Your task to perform on an android device: empty trash in google photos Image 0: 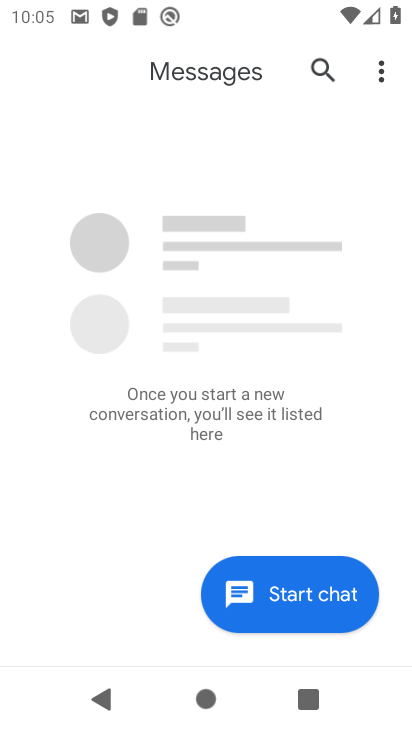
Step 0: press home button
Your task to perform on an android device: empty trash in google photos Image 1: 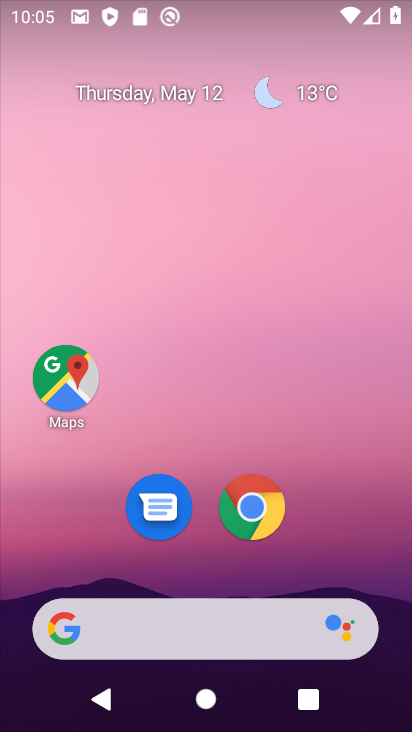
Step 1: drag from (316, 536) to (311, 128)
Your task to perform on an android device: empty trash in google photos Image 2: 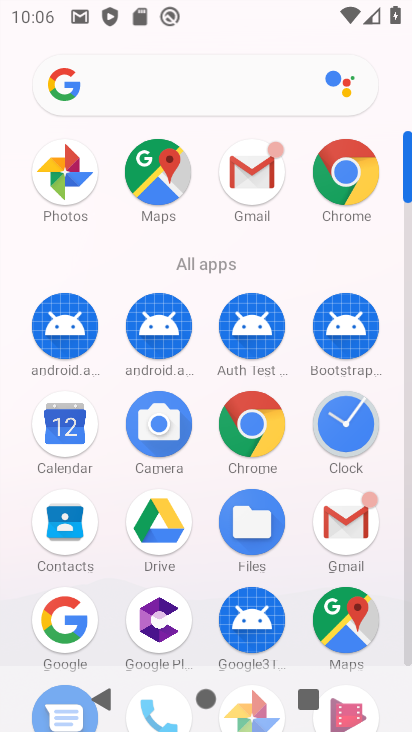
Step 2: drag from (281, 215) to (289, 2)
Your task to perform on an android device: empty trash in google photos Image 3: 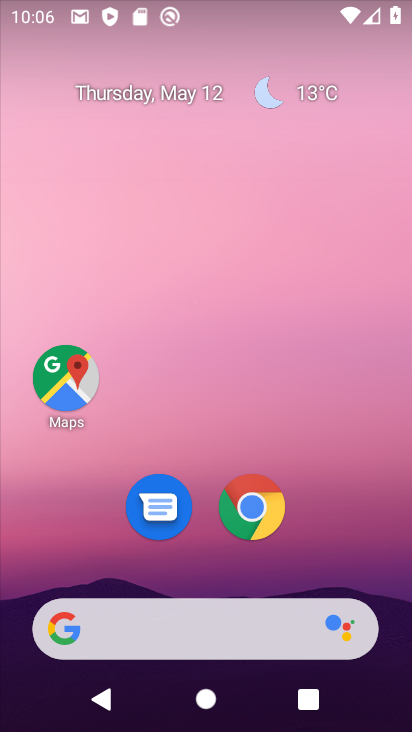
Step 3: click (298, 268)
Your task to perform on an android device: empty trash in google photos Image 4: 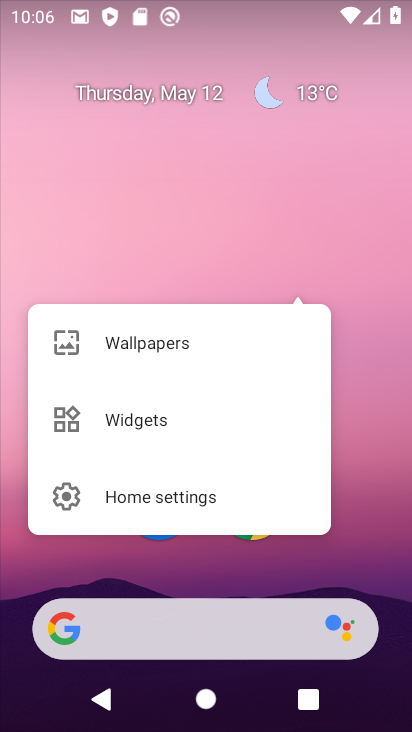
Step 4: click (350, 516)
Your task to perform on an android device: empty trash in google photos Image 5: 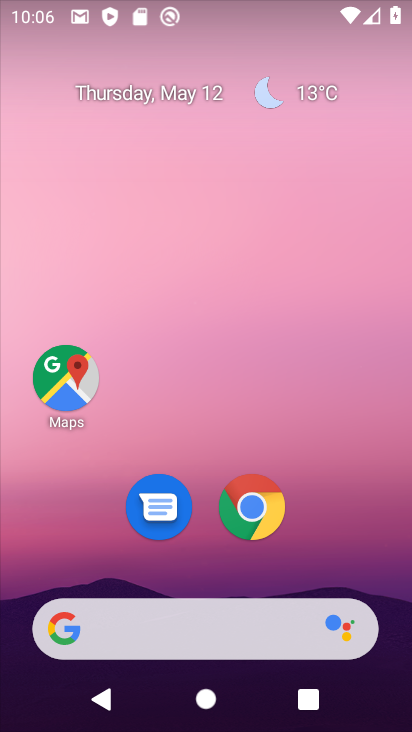
Step 5: drag from (346, 559) to (335, 7)
Your task to perform on an android device: empty trash in google photos Image 6: 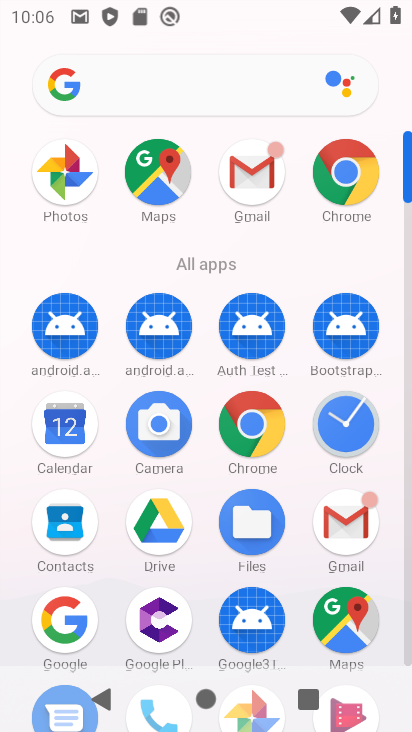
Step 6: drag from (295, 250) to (309, 24)
Your task to perform on an android device: empty trash in google photos Image 7: 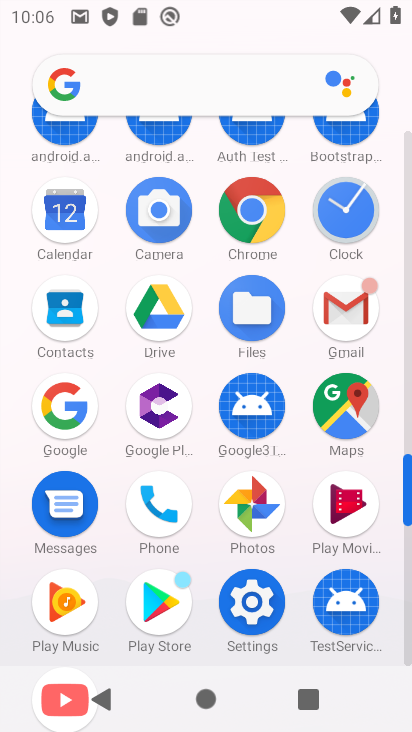
Step 7: click (252, 509)
Your task to perform on an android device: empty trash in google photos Image 8: 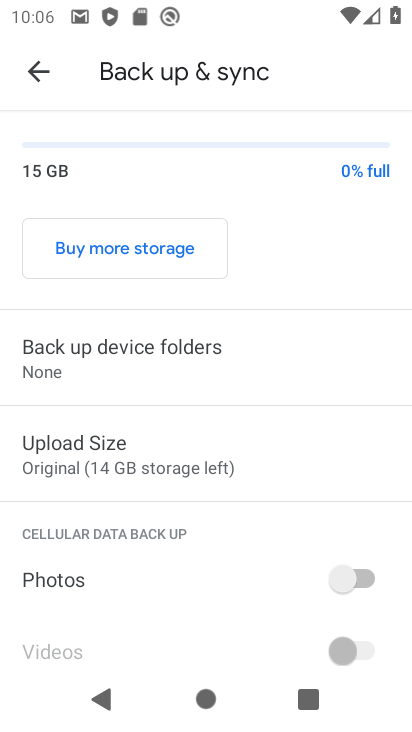
Step 8: drag from (250, 580) to (255, 164)
Your task to perform on an android device: empty trash in google photos Image 9: 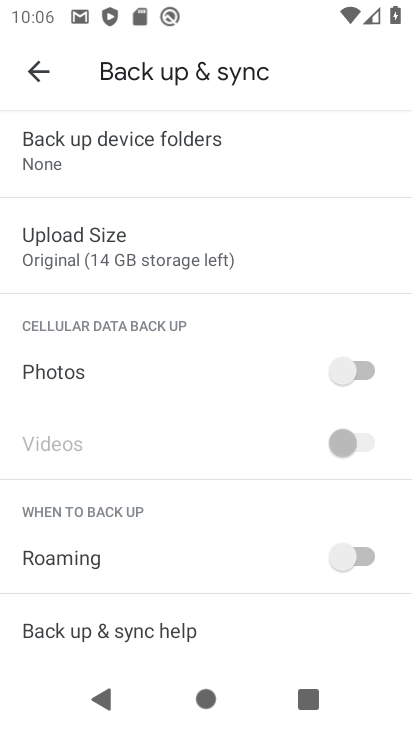
Step 9: click (24, 70)
Your task to perform on an android device: empty trash in google photos Image 10: 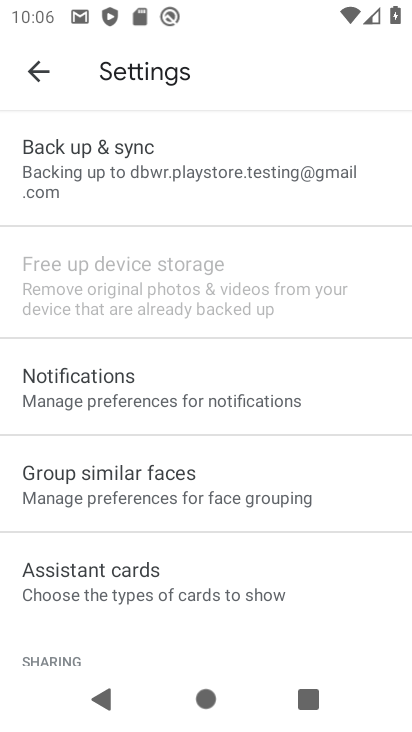
Step 10: drag from (272, 554) to (264, 230)
Your task to perform on an android device: empty trash in google photos Image 11: 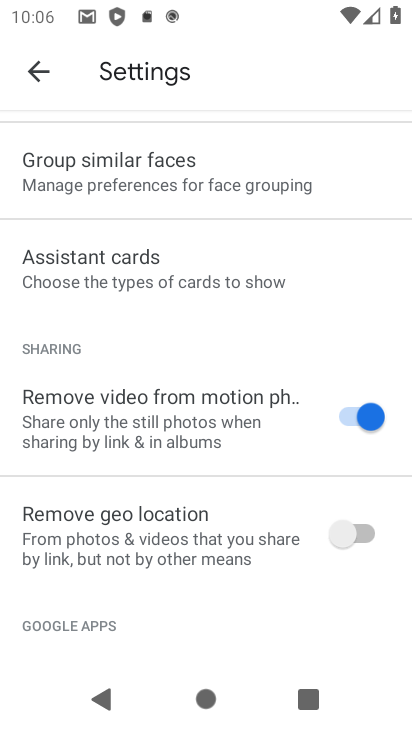
Step 11: click (45, 75)
Your task to perform on an android device: empty trash in google photos Image 12: 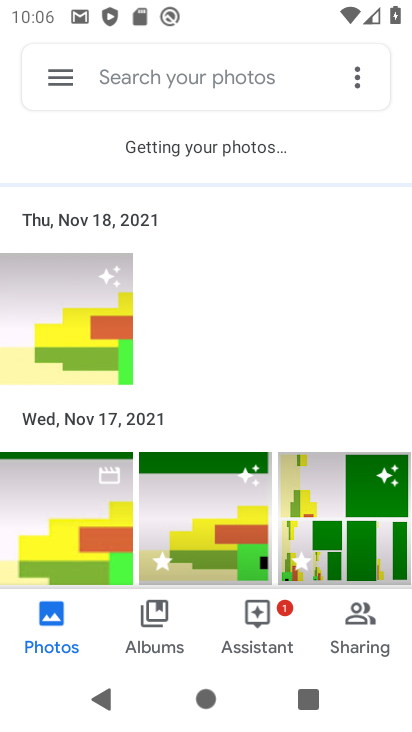
Step 12: click (53, 78)
Your task to perform on an android device: empty trash in google photos Image 13: 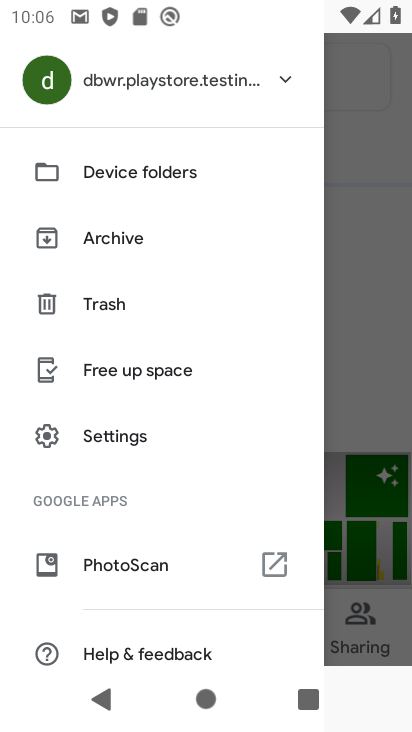
Step 13: click (106, 301)
Your task to perform on an android device: empty trash in google photos Image 14: 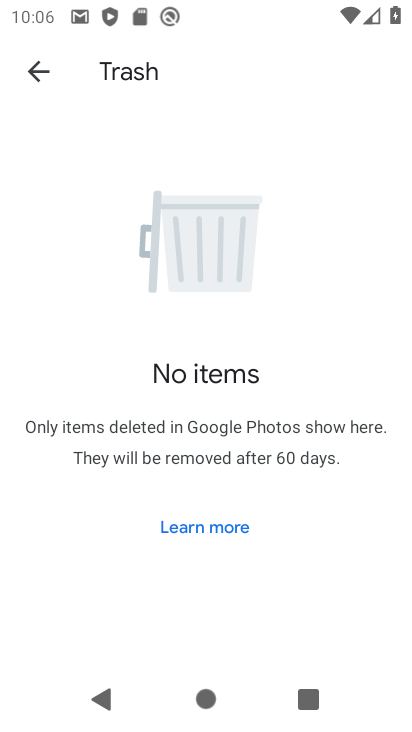
Step 14: task complete